Your task to perform on an android device: What is the recent news? Image 0: 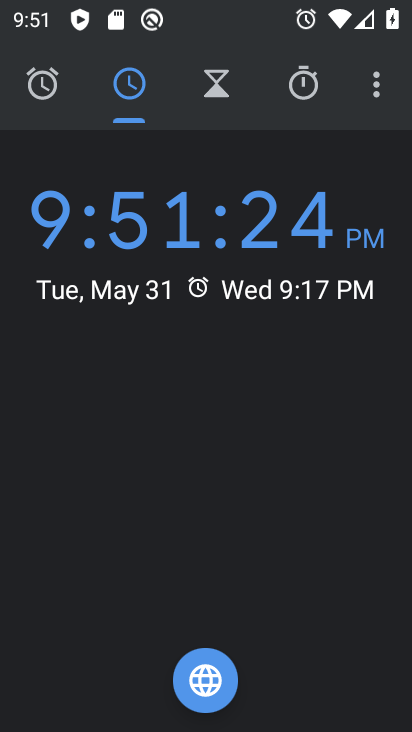
Step 0: press home button
Your task to perform on an android device: What is the recent news? Image 1: 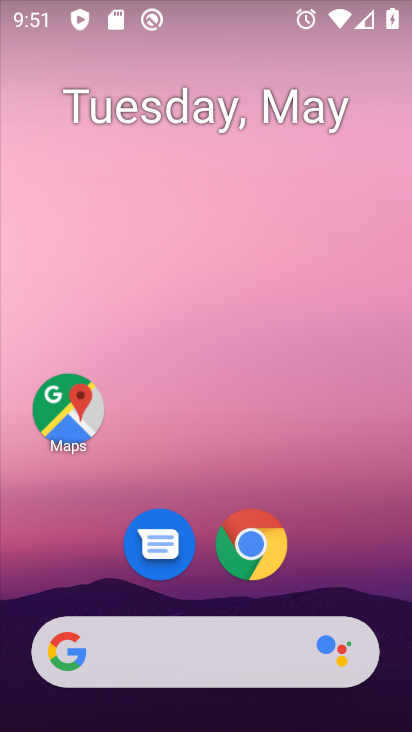
Step 1: drag from (372, 538) to (302, 144)
Your task to perform on an android device: What is the recent news? Image 2: 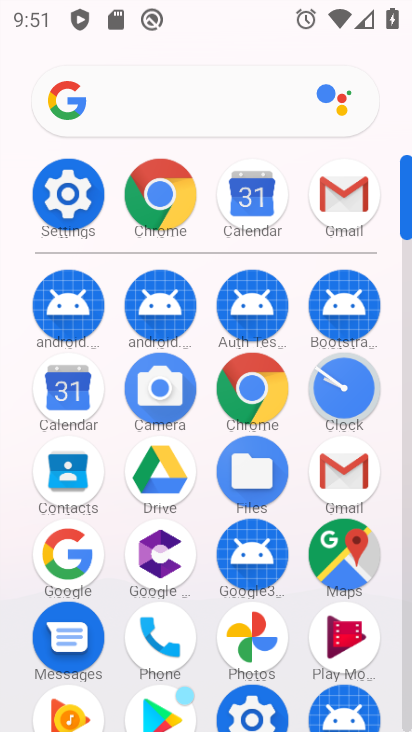
Step 2: click (219, 388)
Your task to perform on an android device: What is the recent news? Image 3: 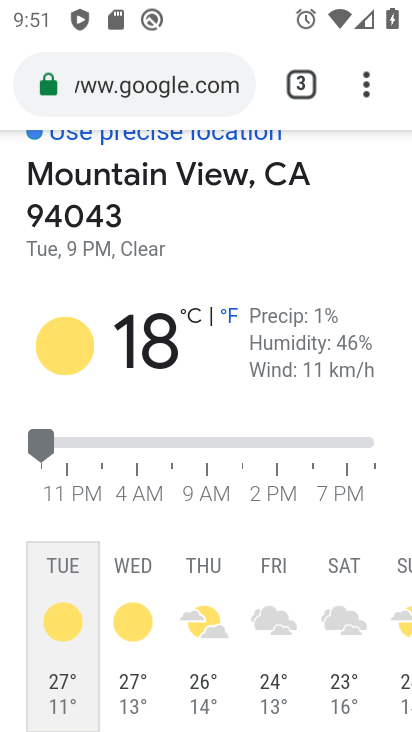
Step 3: click (126, 71)
Your task to perform on an android device: What is the recent news? Image 4: 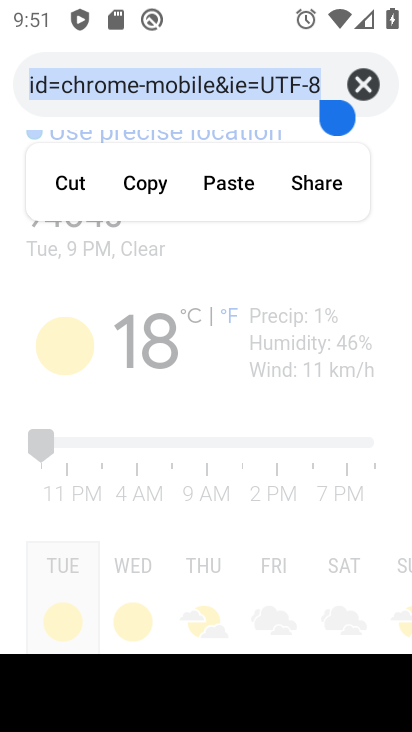
Step 4: click (378, 85)
Your task to perform on an android device: What is the recent news? Image 5: 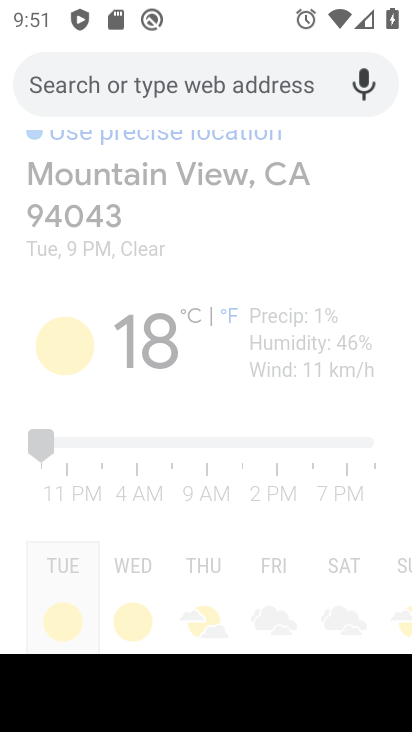
Step 5: type "what is the recent news"
Your task to perform on an android device: What is the recent news? Image 6: 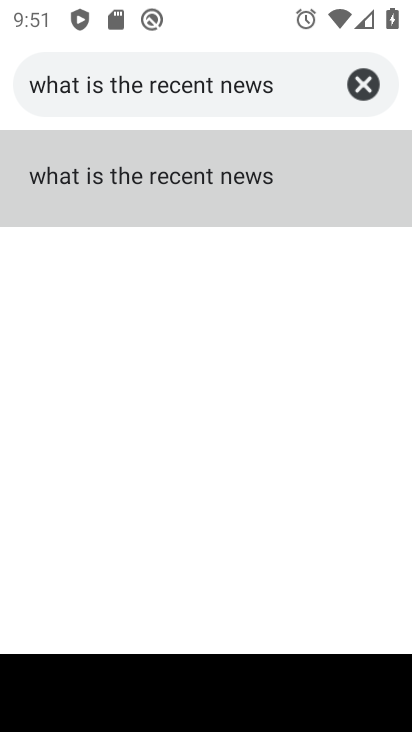
Step 6: click (245, 172)
Your task to perform on an android device: What is the recent news? Image 7: 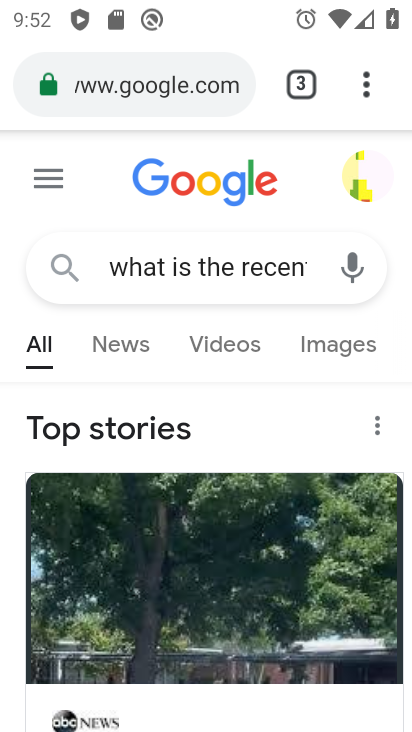
Step 7: task complete